Your task to perform on an android device: star an email in the gmail app Image 0: 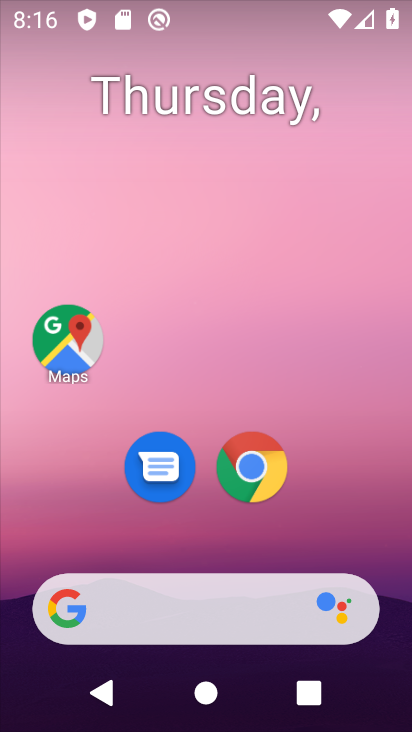
Step 0: drag from (324, 510) to (153, 0)
Your task to perform on an android device: star an email in the gmail app Image 1: 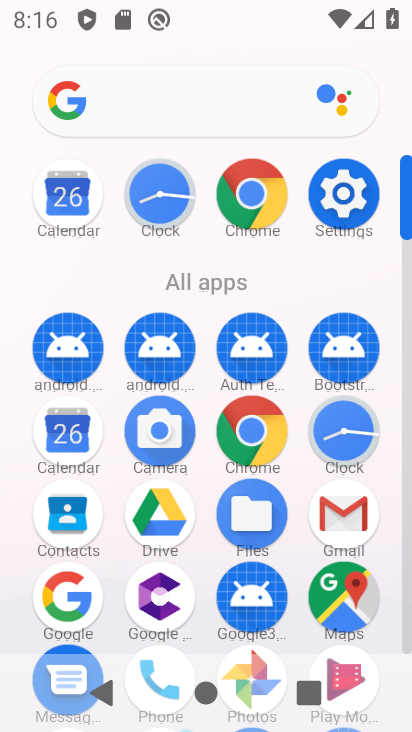
Step 1: click (350, 519)
Your task to perform on an android device: star an email in the gmail app Image 2: 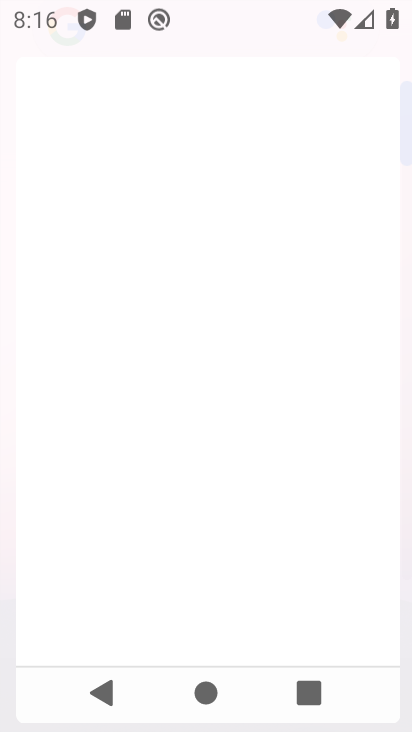
Step 2: click (350, 519)
Your task to perform on an android device: star an email in the gmail app Image 3: 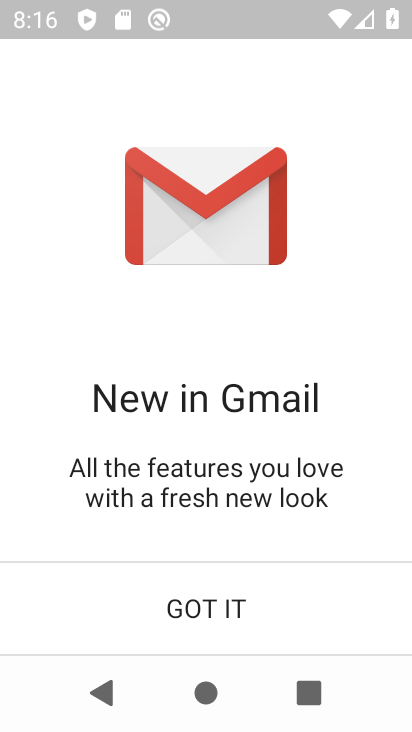
Step 3: click (212, 605)
Your task to perform on an android device: star an email in the gmail app Image 4: 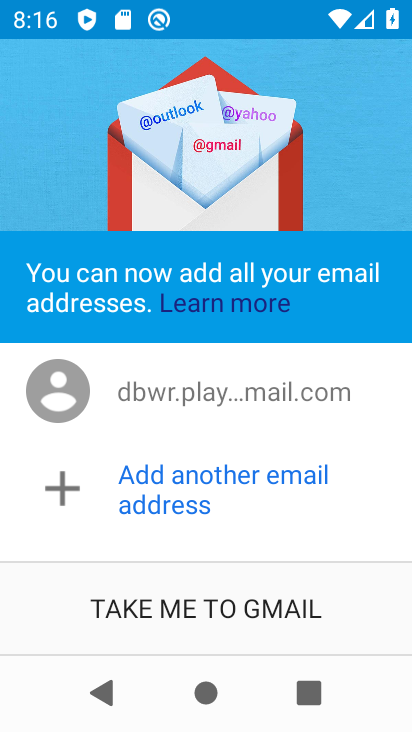
Step 4: click (212, 605)
Your task to perform on an android device: star an email in the gmail app Image 5: 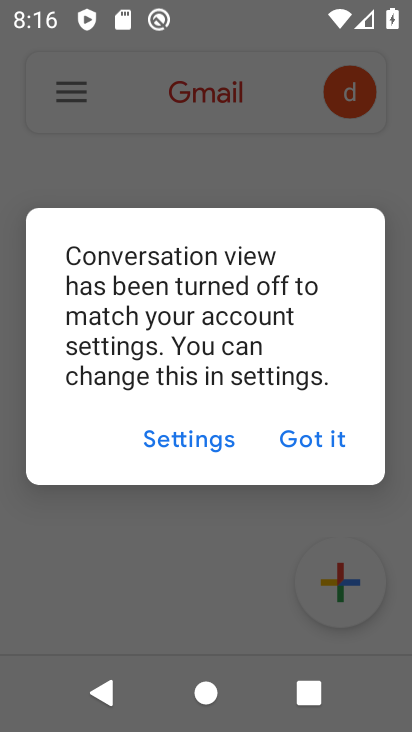
Step 5: click (295, 449)
Your task to perform on an android device: star an email in the gmail app Image 6: 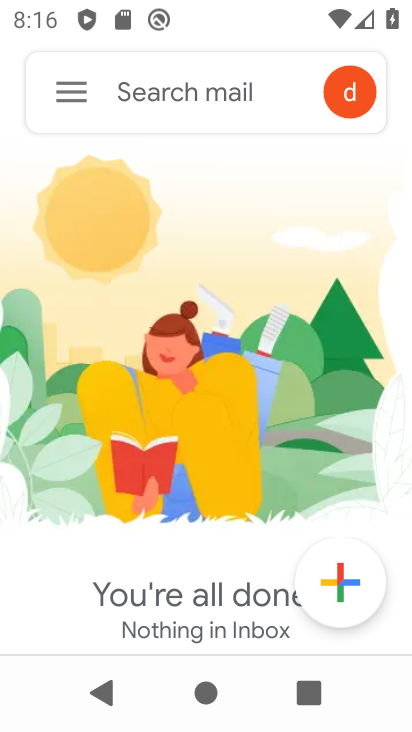
Step 6: click (64, 84)
Your task to perform on an android device: star an email in the gmail app Image 7: 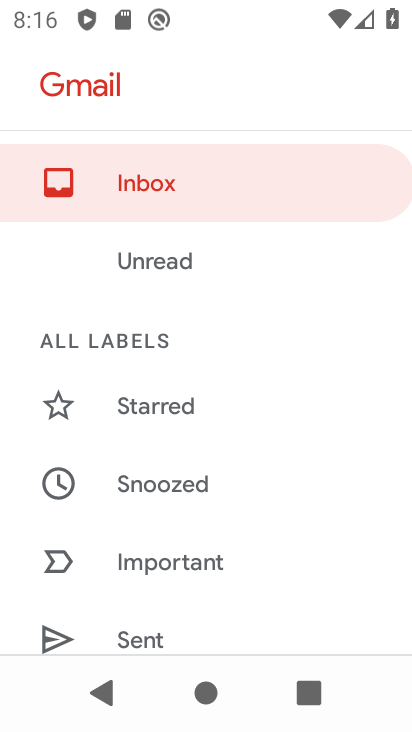
Step 7: drag from (278, 515) to (237, 228)
Your task to perform on an android device: star an email in the gmail app Image 8: 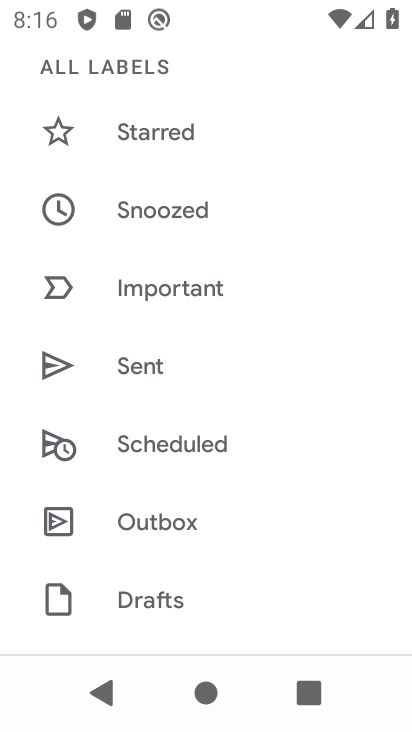
Step 8: drag from (259, 463) to (245, 166)
Your task to perform on an android device: star an email in the gmail app Image 9: 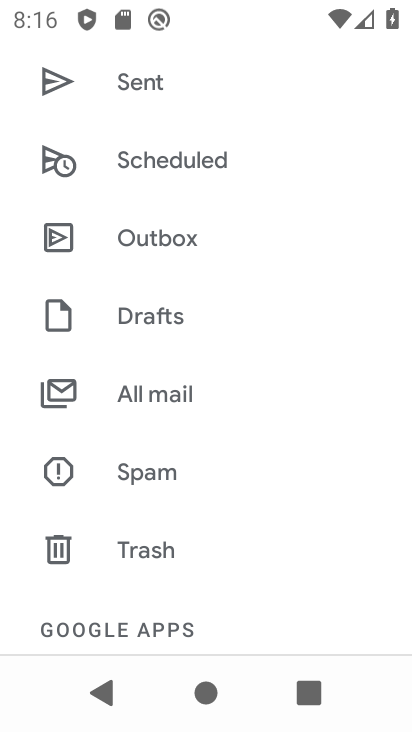
Step 9: click (152, 385)
Your task to perform on an android device: star an email in the gmail app Image 10: 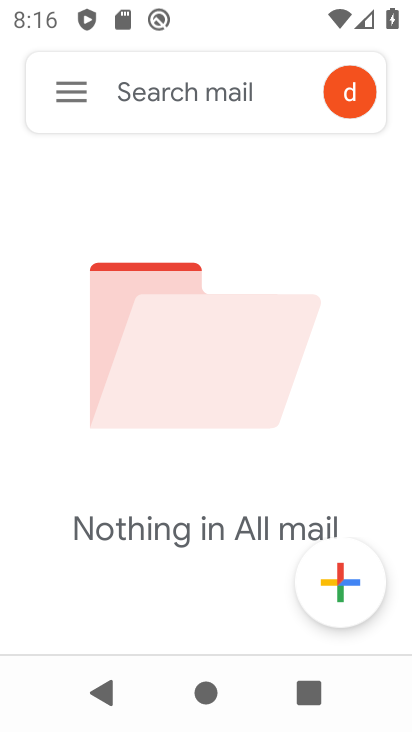
Step 10: task complete